Your task to perform on an android device: delete browsing data in the chrome app Image 0: 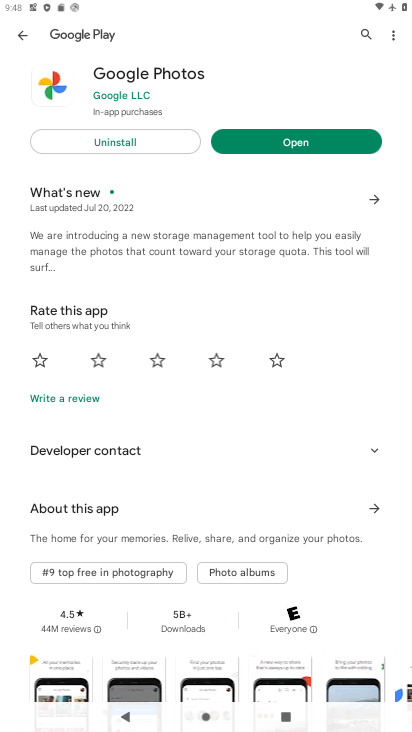
Step 0: press home button
Your task to perform on an android device: delete browsing data in the chrome app Image 1: 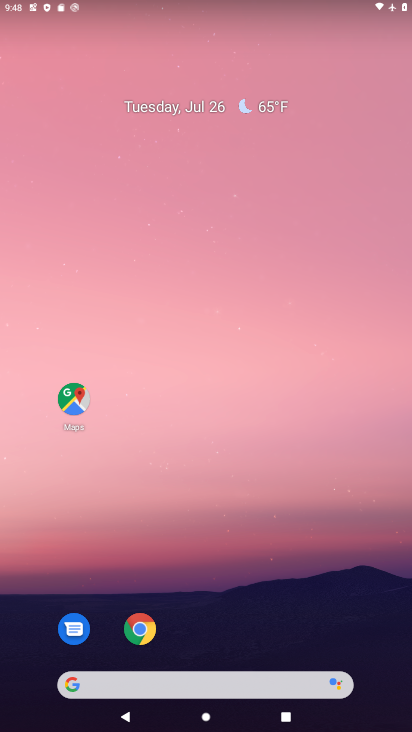
Step 1: drag from (304, 616) to (331, 164)
Your task to perform on an android device: delete browsing data in the chrome app Image 2: 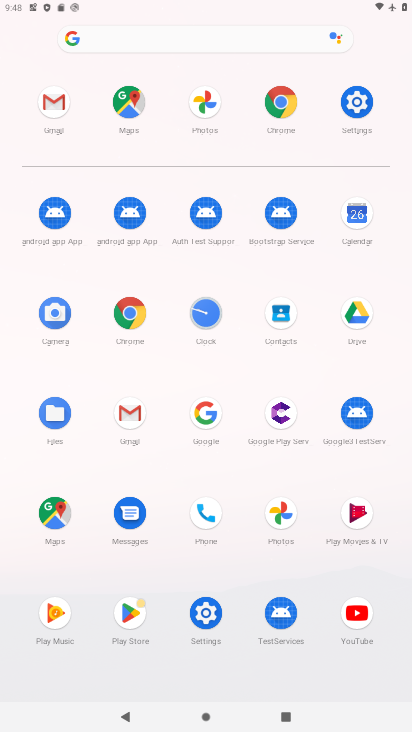
Step 2: click (129, 314)
Your task to perform on an android device: delete browsing data in the chrome app Image 3: 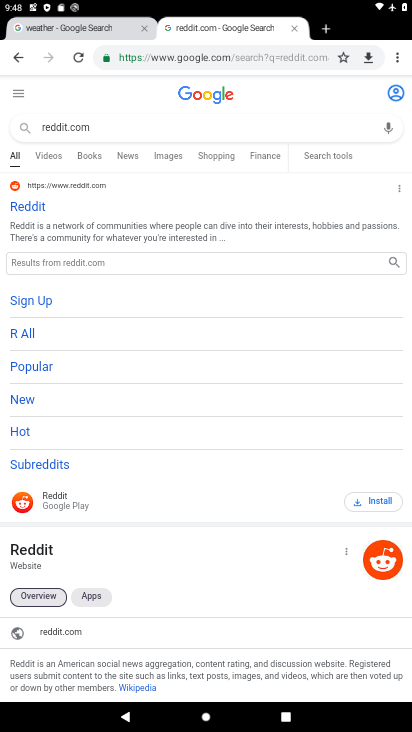
Step 3: drag from (396, 54) to (274, 174)
Your task to perform on an android device: delete browsing data in the chrome app Image 4: 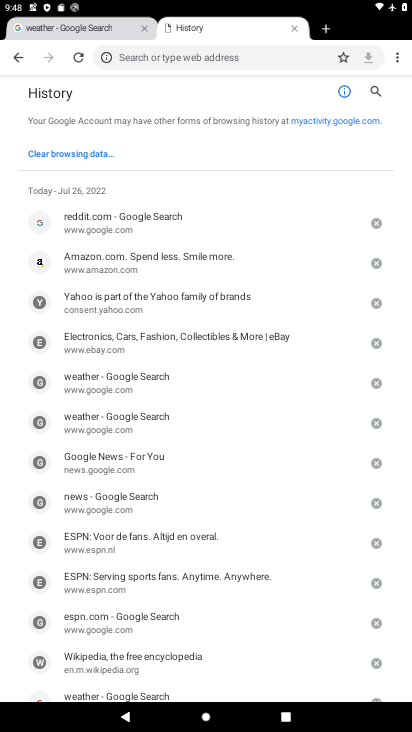
Step 4: click (101, 151)
Your task to perform on an android device: delete browsing data in the chrome app Image 5: 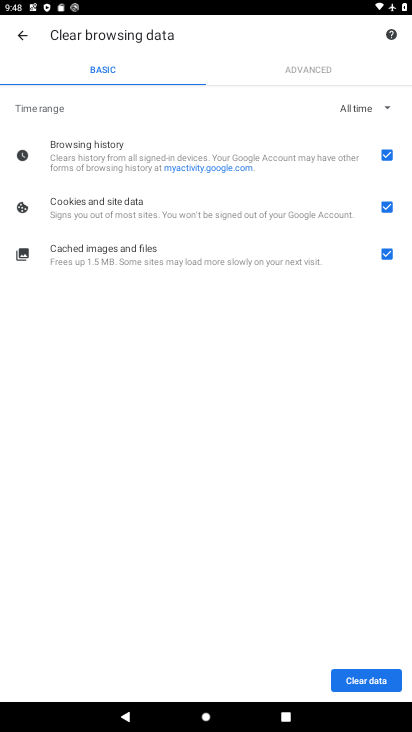
Step 5: click (370, 682)
Your task to perform on an android device: delete browsing data in the chrome app Image 6: 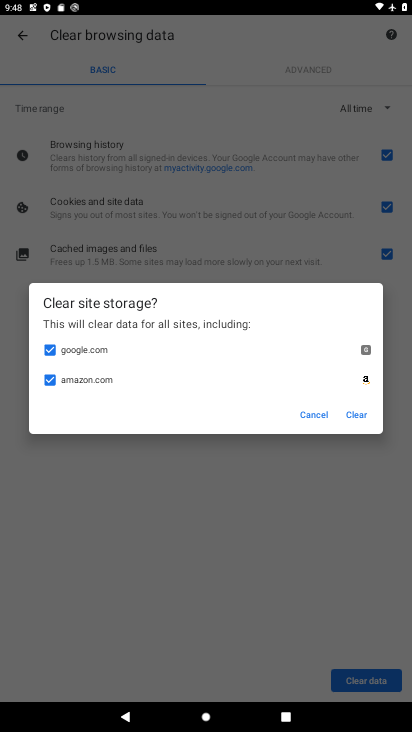
Step 6: click (364, 418)
Your task to perform on an android device: delete browsing data in the chrome app Image 7: 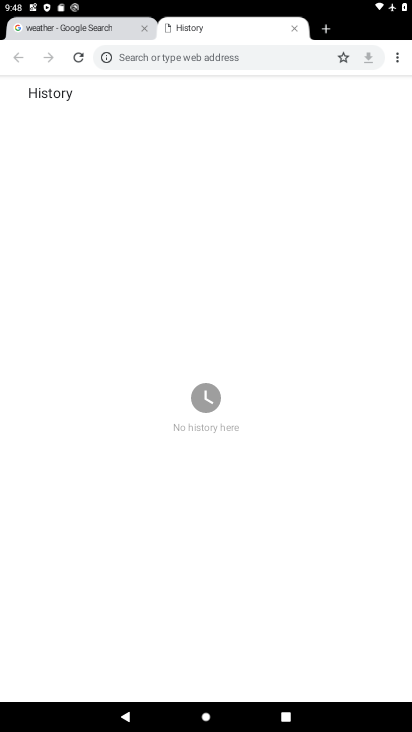
Step 7: task complete